Your task to perform on an android device: Open the calendar and show me this week's events? Image 0: 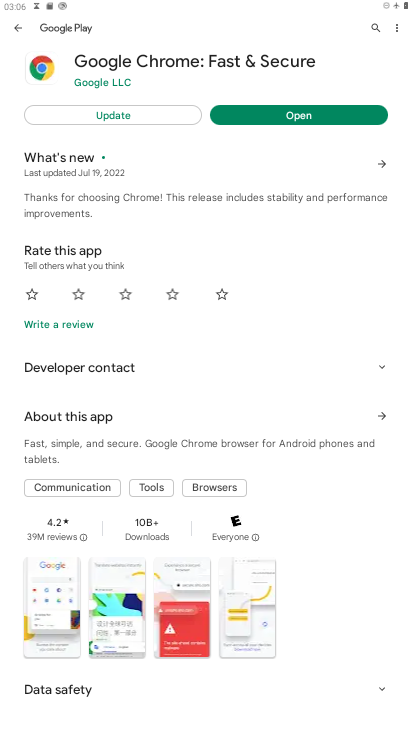
Step 0: press home button
Your task to perform on an android device: Open the calendar and show me this week's events? Image 1: 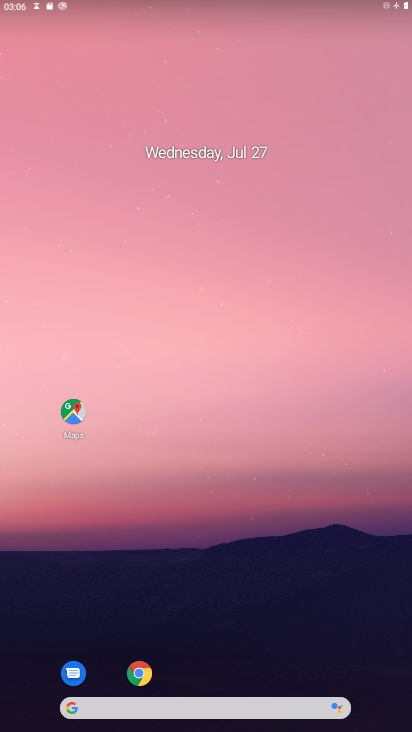
Step 1: drag from (230, 662) to (240, 188)
Your task to perform on an android device: Open the calendar and show me this week's events? Image 2: 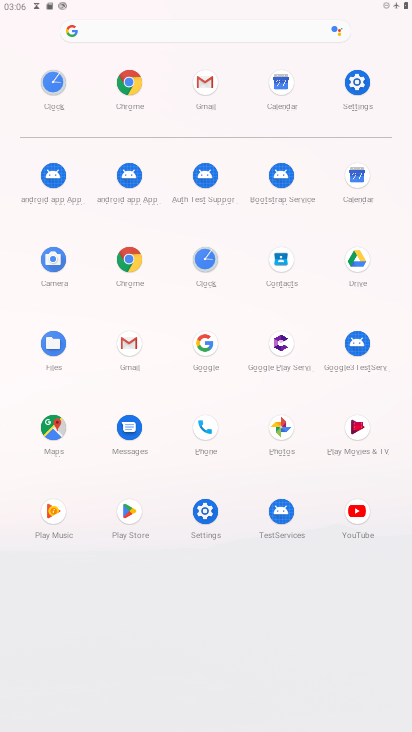
Step 2: click (350, 169)
Your task to perform on an android device: Open the calendar and show me this week's events? Image 3: 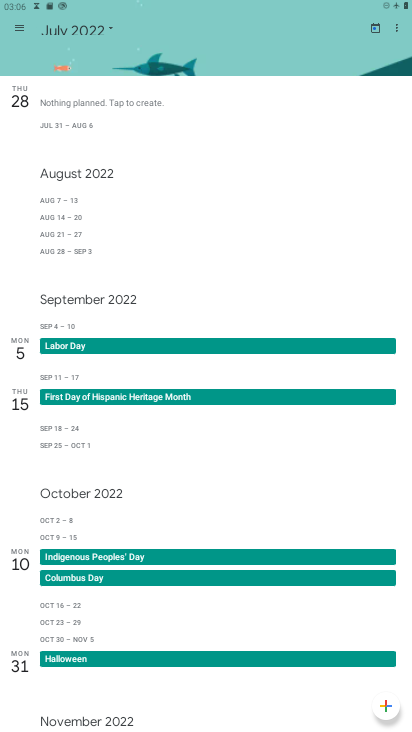
Step 3: click (14, 26)
Your task to perform on an android device: Open the calendar and show me this week's events? Image 4: 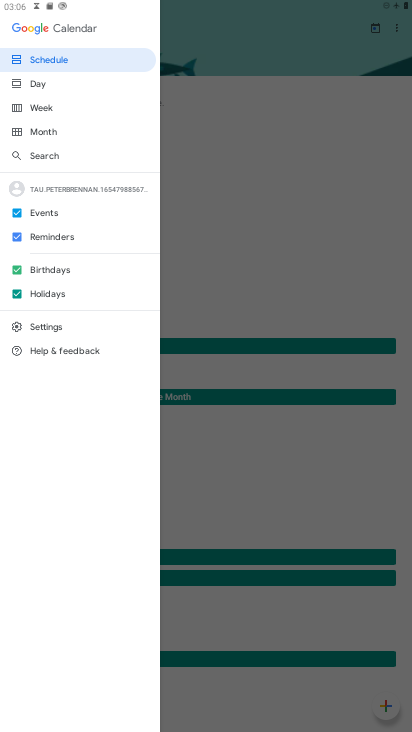
Step 4: click (37, 110)
Your task to perform on an android device: Open the calendar and show me this week's events? Image 5: 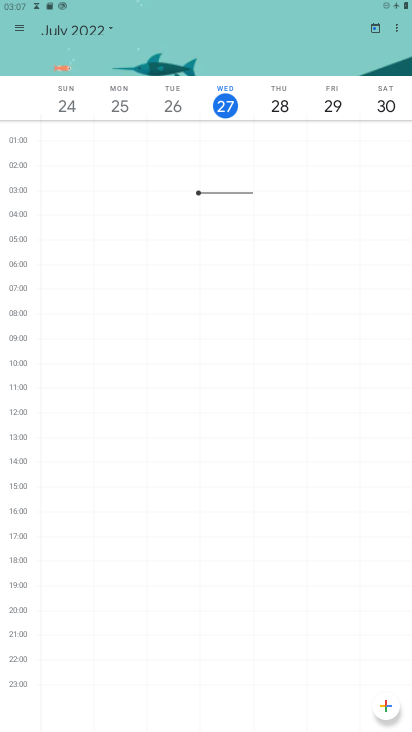
Step 5: task complete